Your task to perform on an android device: Open ESPN.com Image 0: 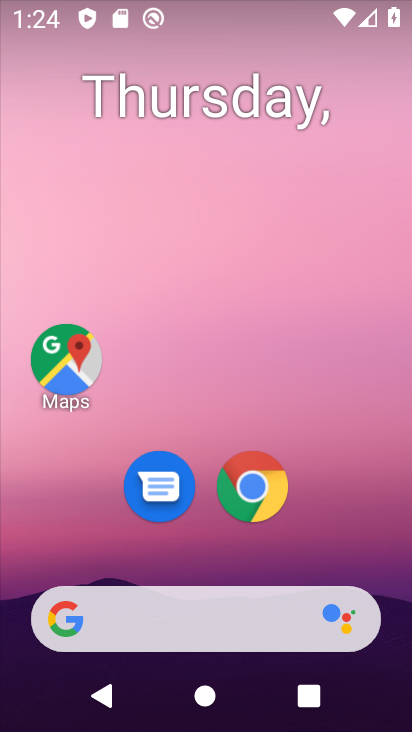
Step 0: click (273, 493)
Your task to perform on an android device: Open ESPN.com Image 1: 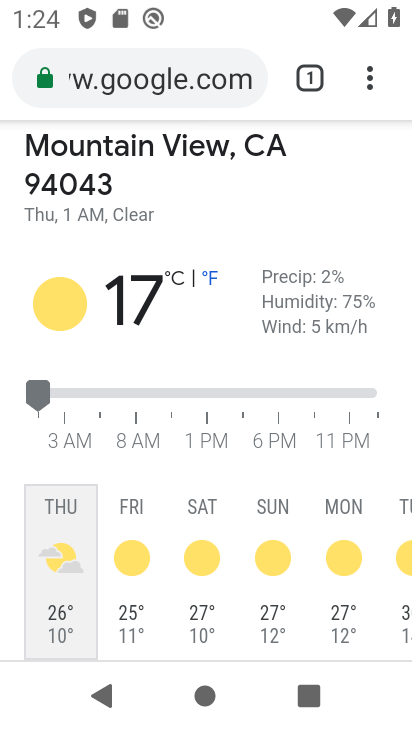
Step 1: click (176, 76)
Your task to perform on an android device: Open ESPN.com Image 2: 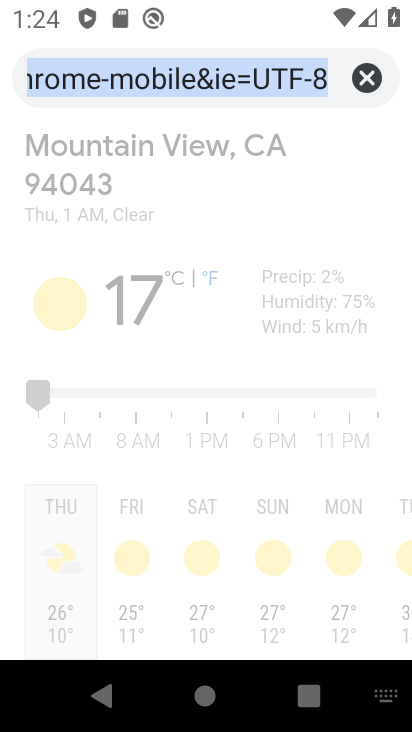
Step 2: type "espn.com"
Your task to perform on an android device: Open ESPN.com Image 3: 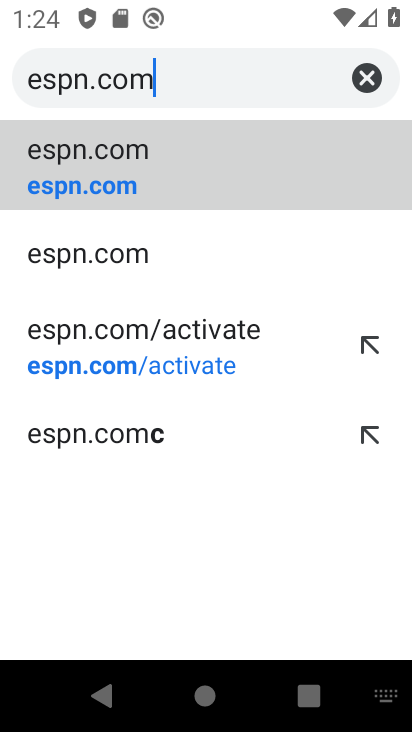
Step 3: click (102, 195)
Your task to perform on an android device: Open ESPN.com Image 4: 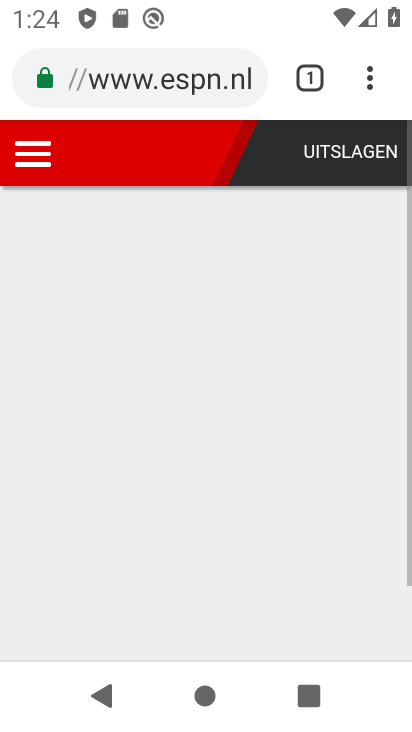
Step 4: task complete